Your task to perform on an android device: Open Google Maps Image 0: 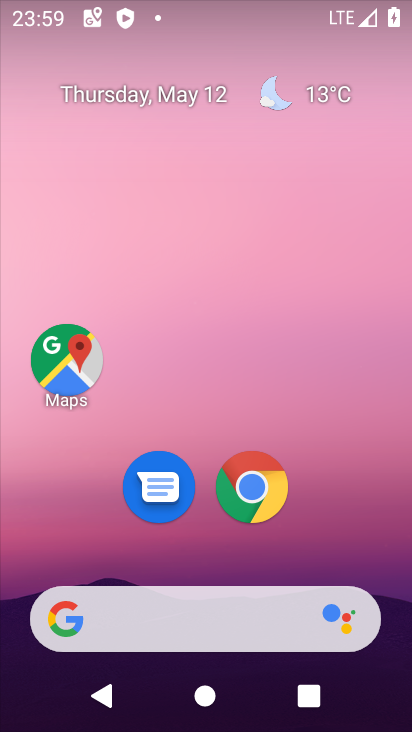
Step 0: click (65, 347)
Your task to perform on an android device: Open Google Maps Image 1: 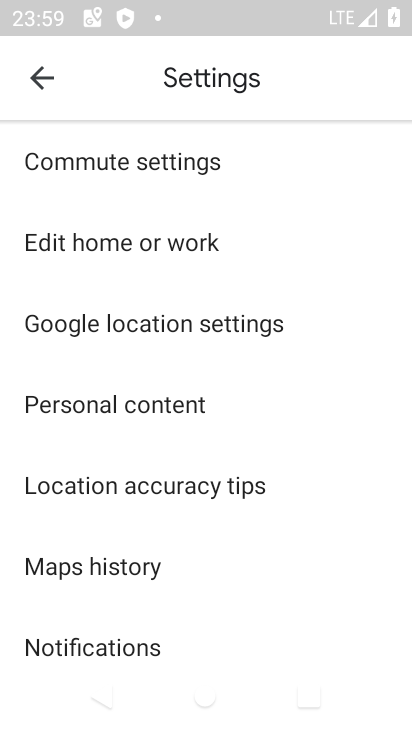
Step 1: click (91, 72)
Your task to perform on an android device: Open Google Maps Image 2: 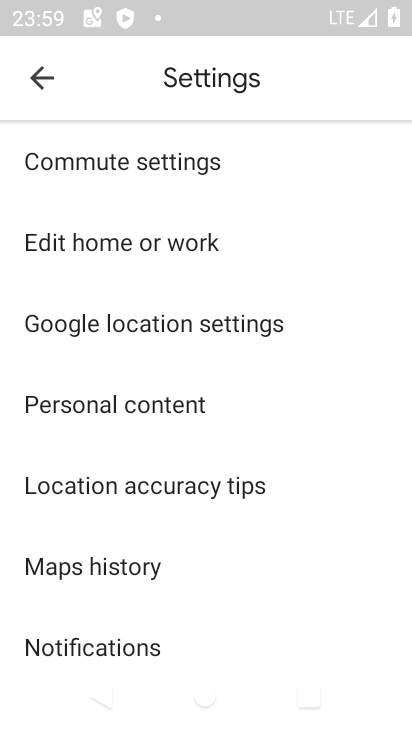
Step 2: click (66, 73)
Your task to perform on an android device: Open Google Maps Image 3: 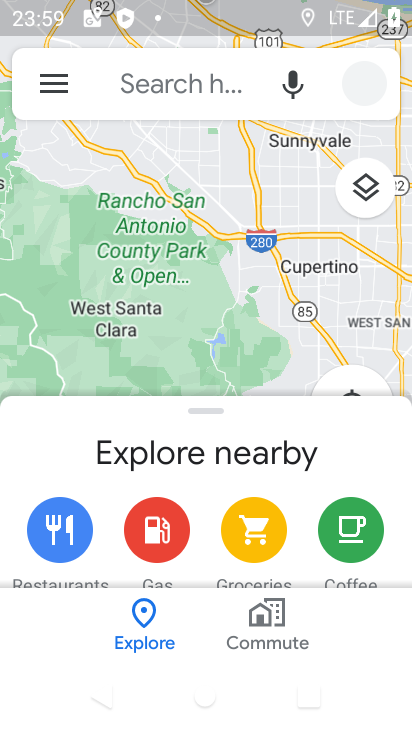
Step 3: click (66, 73)
Your task to perform on an android device: Open Google Maps Image 4: 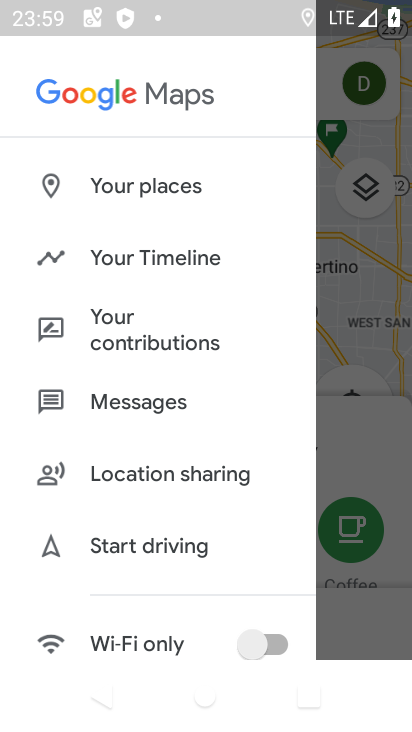
Step 4: task complete